Your task to perform on an android device: Is it going to rain this weekend? Image 0: 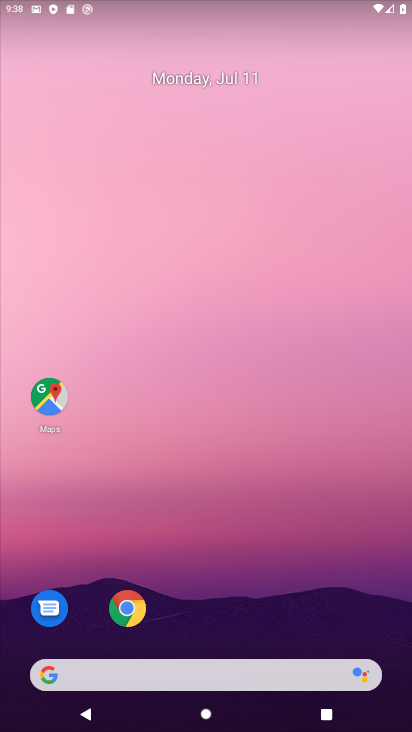
Step 0: drag from (313, 713) to (223, 178)
Your task to perform on an android device: Is it going to rain this weekend? Image 1: 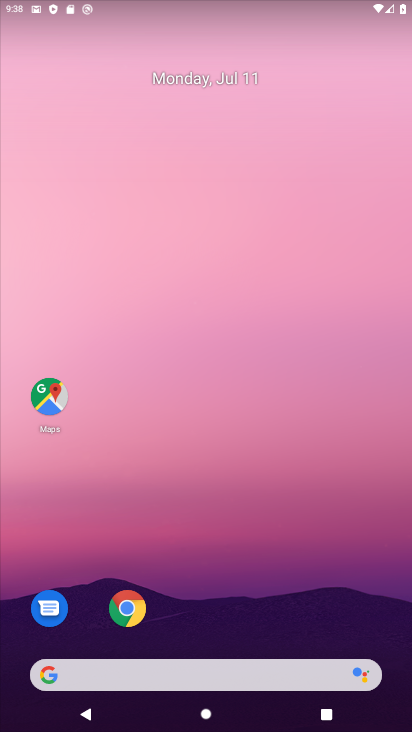
Step 1: drag from (239, 683) to (198, 205)
Your task to perform on an android device: Is it going to rain this weekend? Image 2: 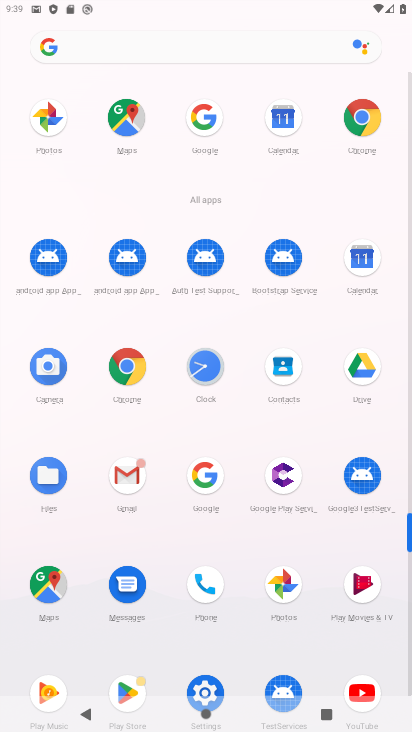
Step 2: click (364, 118)
Your task to perform on an android device: Is it going to rain this weekend? Image 3: 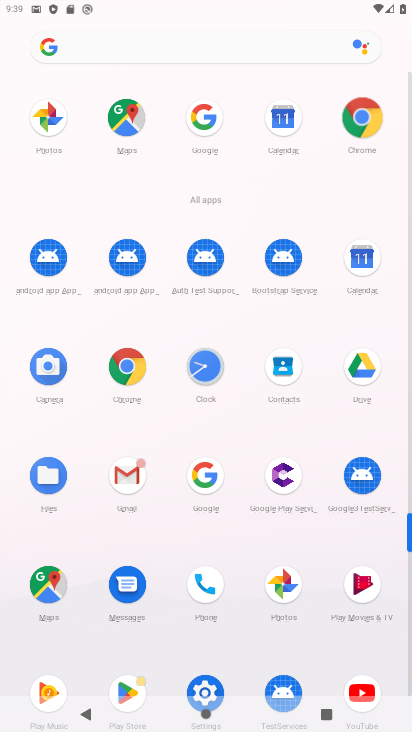
Step 3: click (364, 116)
Your task to perform on an android device: Is it going to rain this weekend? Image 4: 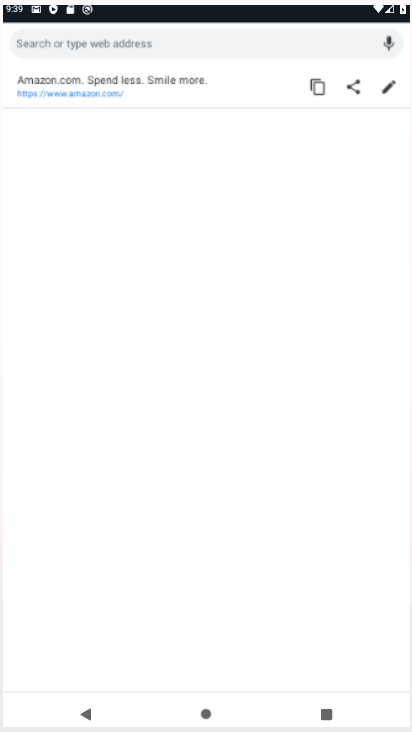
Step 4: click (365, 115)
Your task to perform on an android device: Is it going to rain this weekend? Image 5: 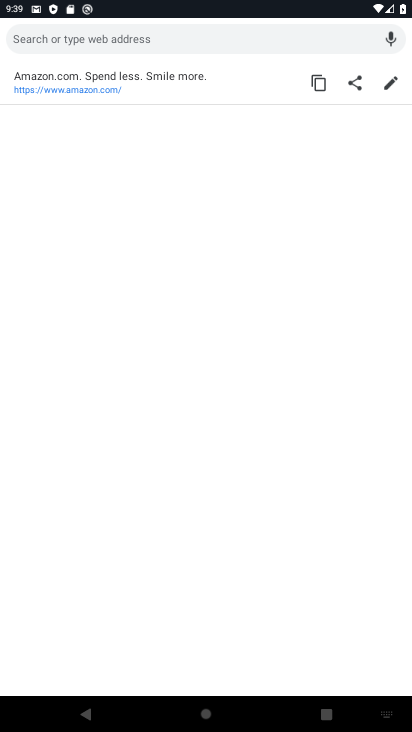
Step 5: click (124, 36)
Your task to perform on an android device: Is it going to rain this weekend? Image 6: 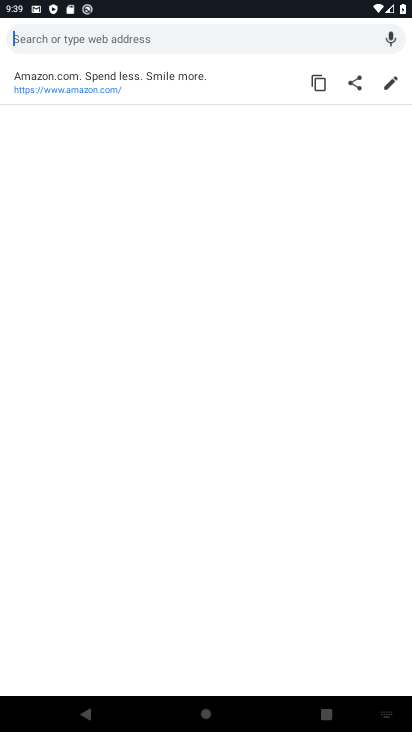
Step 6: click (125, 35)
Your task to perform on an android device: Is it going to rain this weekend? Image 7: 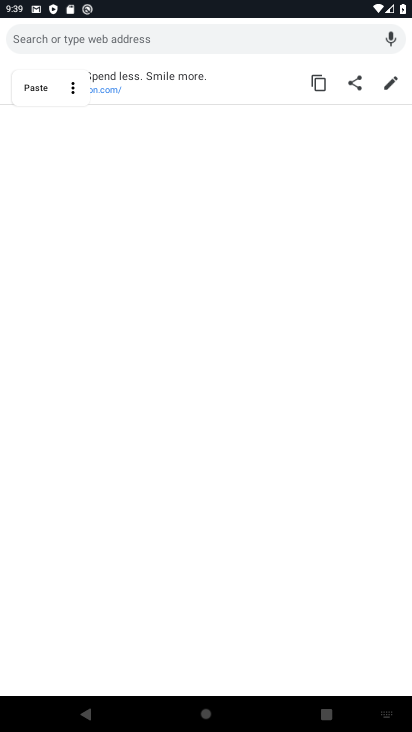
Step 7: type "is it going to rain thiis weekend?"
Your task to perform on an android device: Is it going to rain this weekend? Image 8: 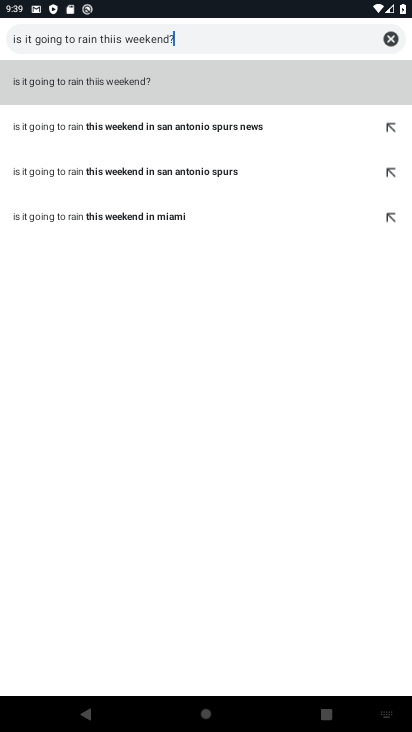
Step 8: click (152, 81)
Your task to perform on an android device: Is it going to rain this weekend? Image 9: 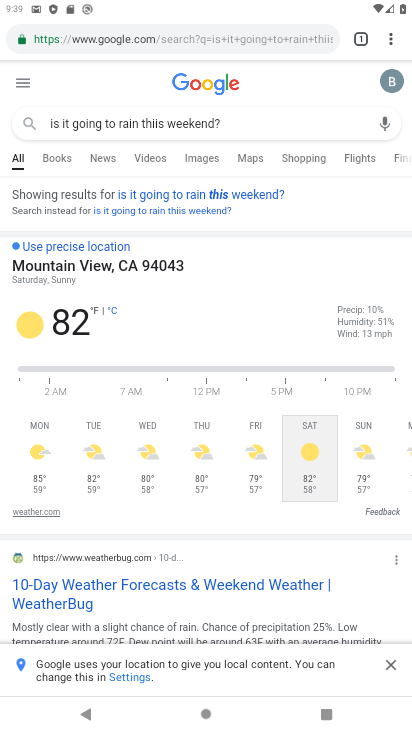
Step 9: task complete